Your task to perform on an android device: find photos in the google photos app Image 0: 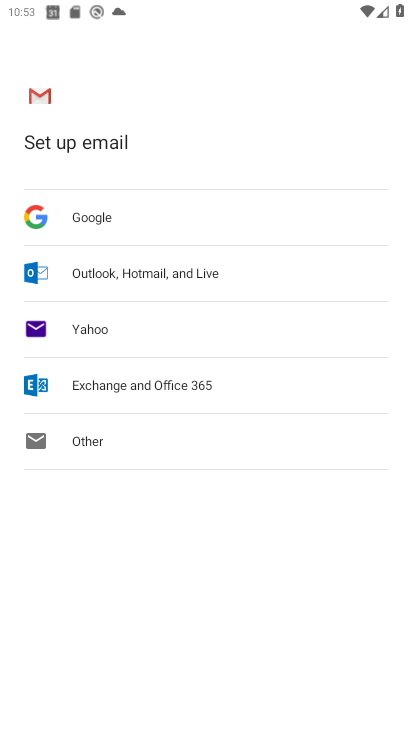
Step 0: press back button
Your task to perform on an android device: find photos in the google photos app Image 1: 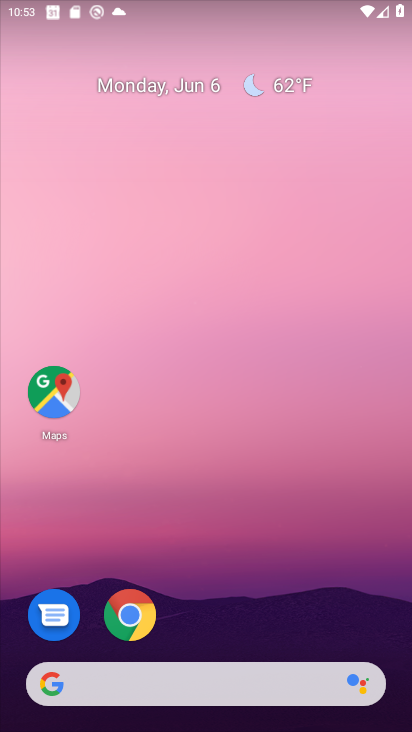
Step 1: drag from (283, 687) to (169, 1)
Your task to perform on an android device: find photos in the google photos app Image 2: 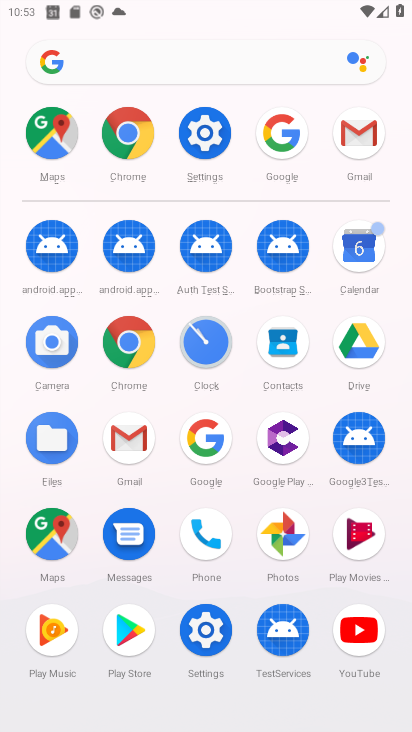
Step 2: click (283, 538)
Your task to perform on an android device: find photos in the google photos app Image 3: 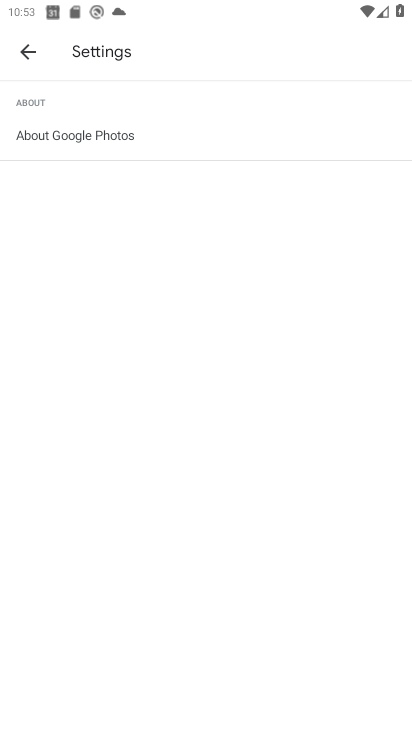
Step 3: click (21, 56)
Your task to perform on an android device: find photos in the google photos app Image 4: 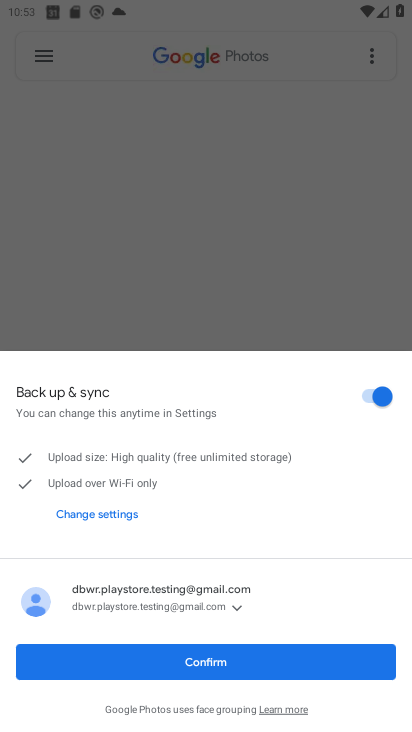
Step 4: click (219, 659)
Your task to perform on an android device: find photos in the google photos app Image 5: 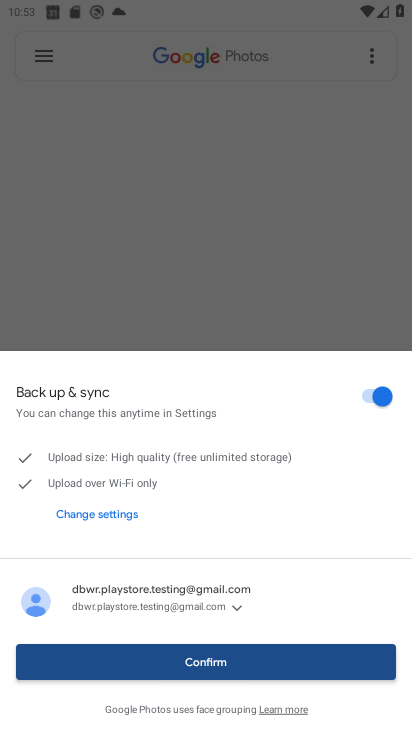
Step 5: click (219, 659)
Your task to perform on an android device: find photos in the google photos app Image 6: 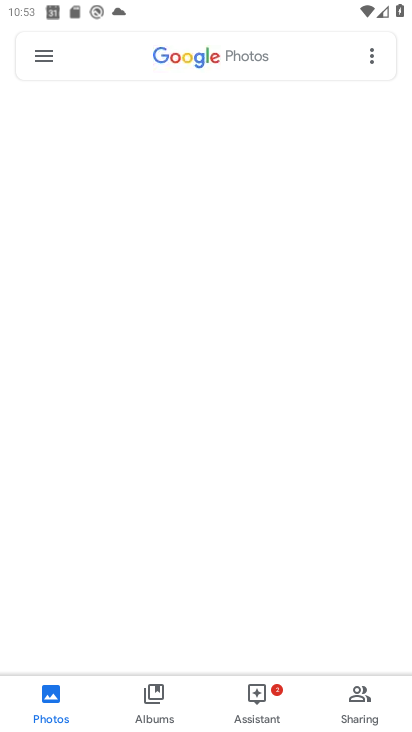
Step 6: click (224, 656)
Your task to perform on an android device: find photos in the google photos app Image 7: 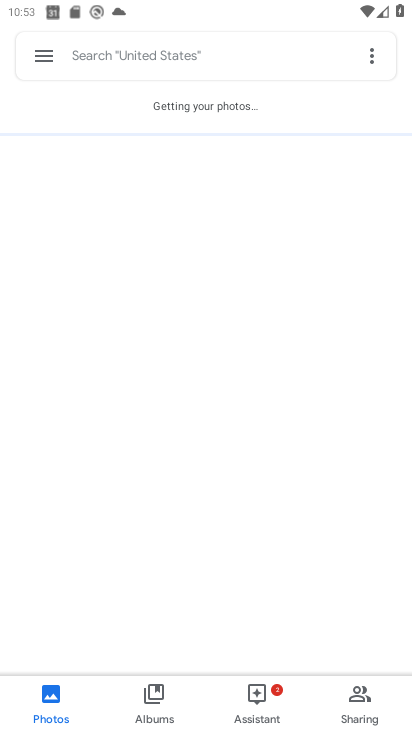
Step 7: task complete